Your task to perform on an android device: Open Google Maps Image 0: 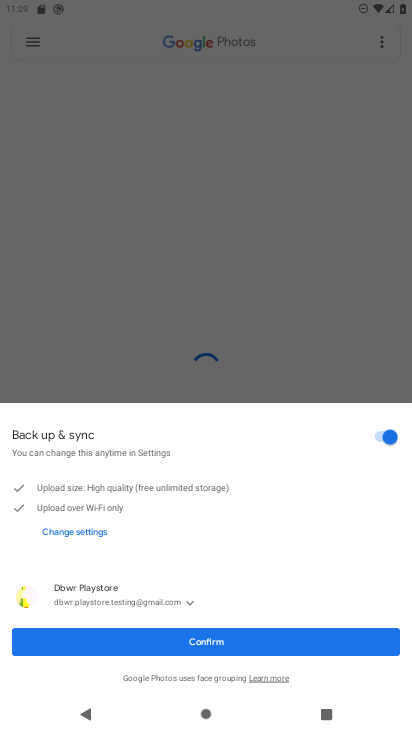
Step 0: press back button
Your task to perform on an android device: Open Google Maps Image 1: 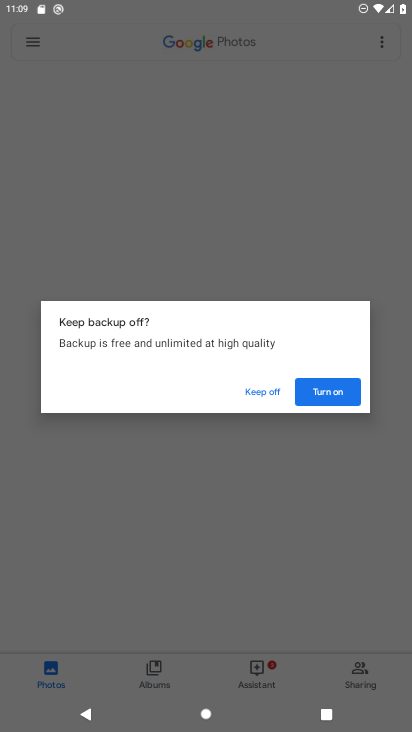
Step 1: press home button
Your task to perform on an android device: Open Google Maps Image 2: 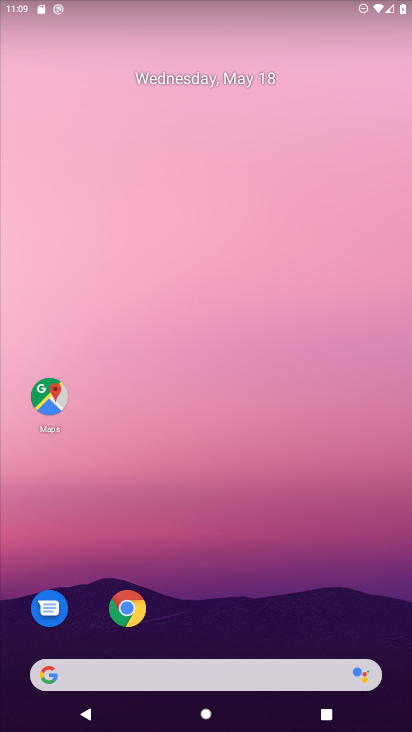
Step 2: click (44, 399)
Your task to perform on an android device: Open Google Maps Image 3: 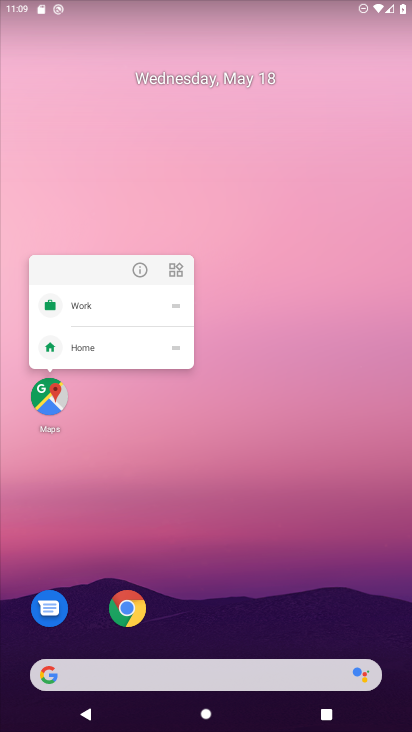
Step 3: click (48, 396)
Your task to perform on an android device: Open Google Maps Image 4: 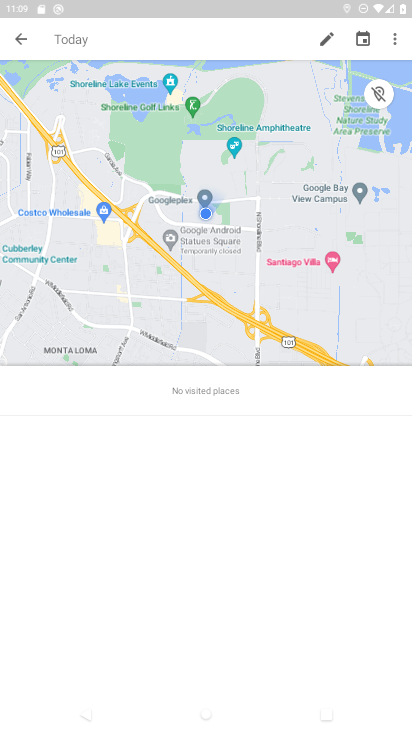
Step 4: click (21, 42)
Your task to perform on an android device: Open Google Maps Image 5: 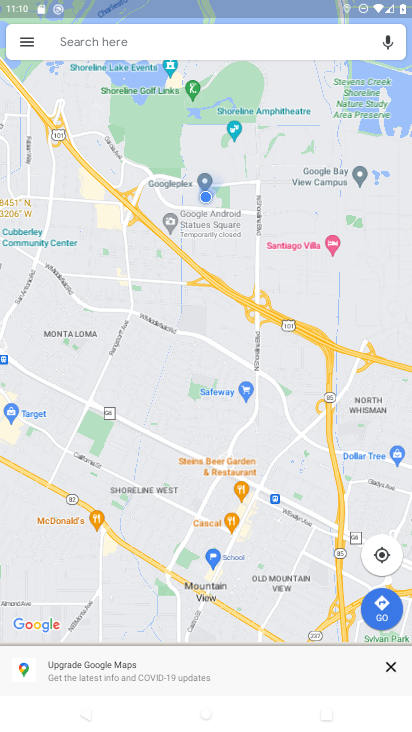
Step 5: task complete